Your task to perform on an android device: Go to Reddit.com Image 0: 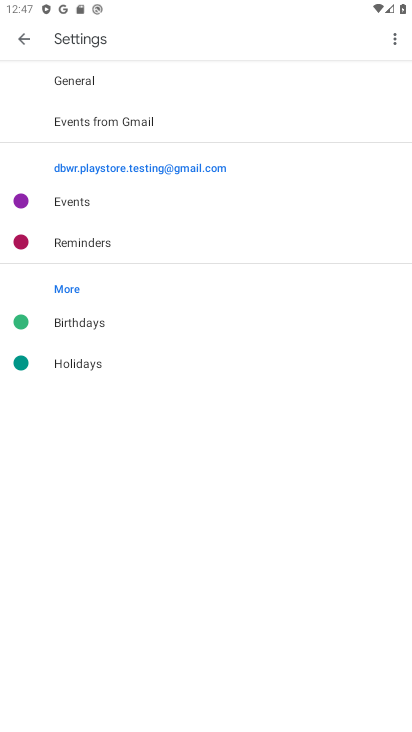
Step 0: press home button
Your task to perform on an android device: Go to Reddit.com Image 1: 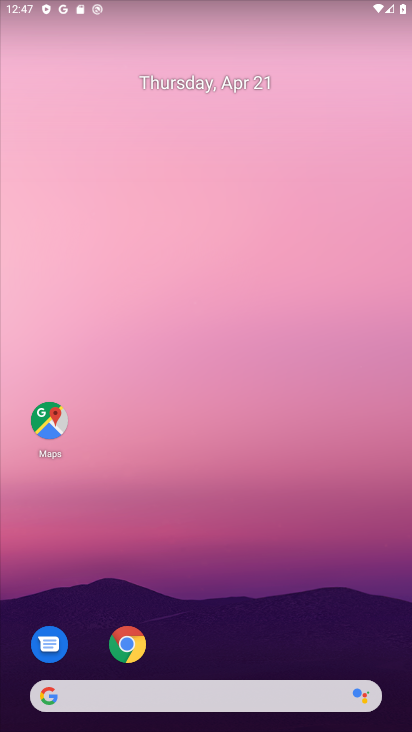
Step 1: drag from (284, 601) to (214, 34)
Your task to perform on an android device: Go to Reddit.com Image 2: 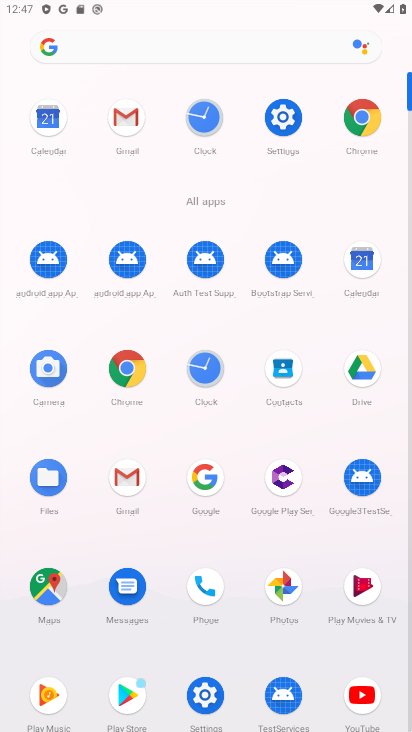
Step 2: click (361, 134)
Your task to perform on an android device: Go to Reddit.com Image 3: 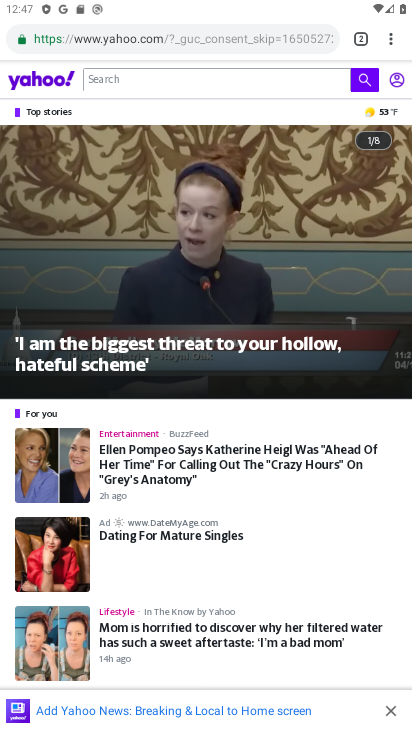
Step 3: click (197, 33)
Your task to perform on an android device: Go to Reddit.com Image 4: 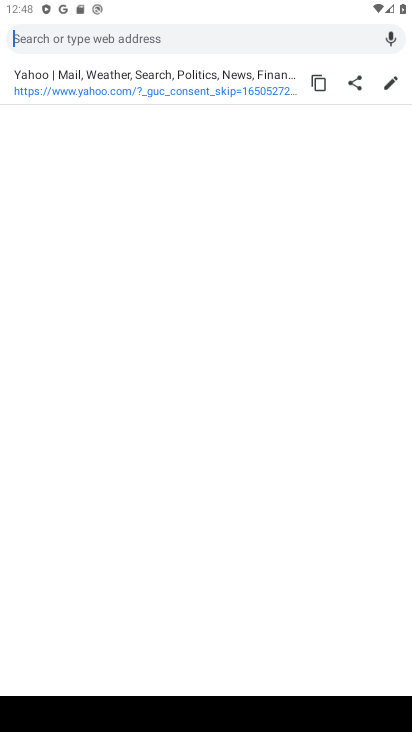
Step 4: type "reddit.com"
Your task to perform on an android device: Go to Reddit.com Image 5: 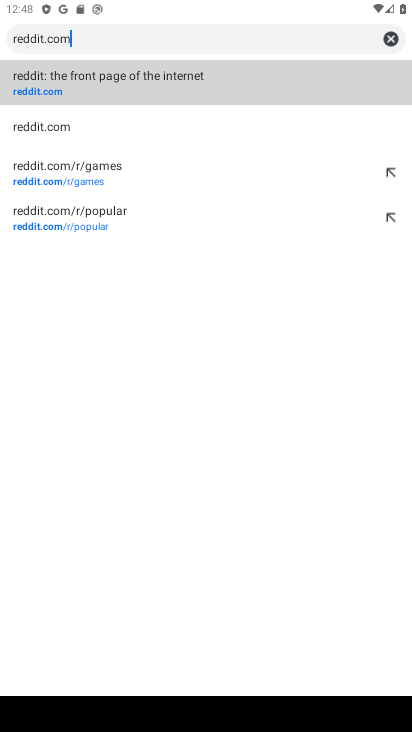
Step 5: click (45, 96)
Your task to perform on an android device: Go to Reddit.com Image 6: 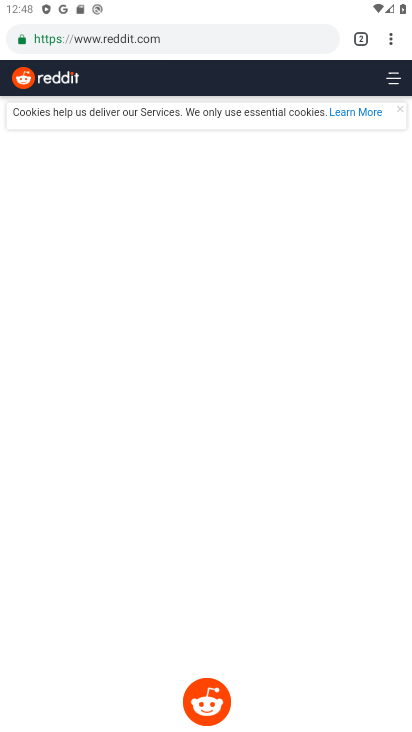
Step 6: task complete